Your task to perform on an android device: turn off picture-in-picture Image 0: 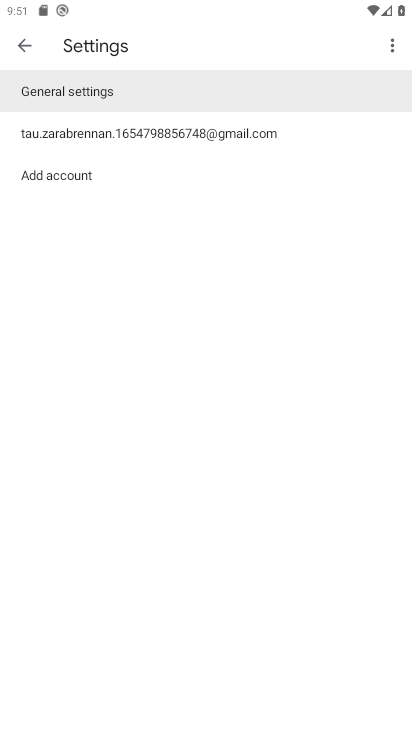
Step 0: press home button
Your task to perform on an android device: turn off picture-in-picture Image 1: 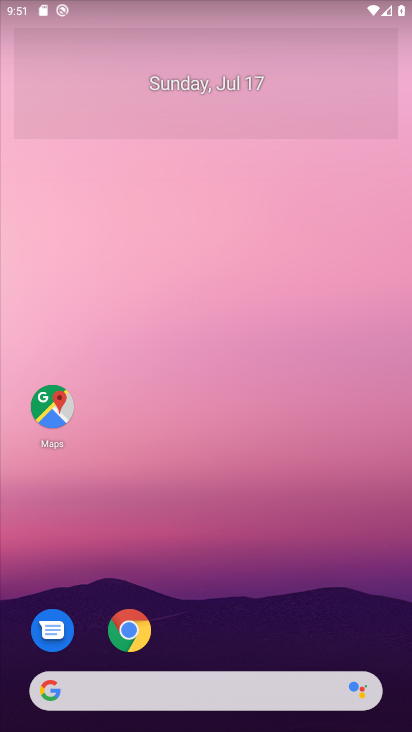
Step 1: click (156, 635)
Your task to perform on an android device: turn off picture-in-picture Image 2: 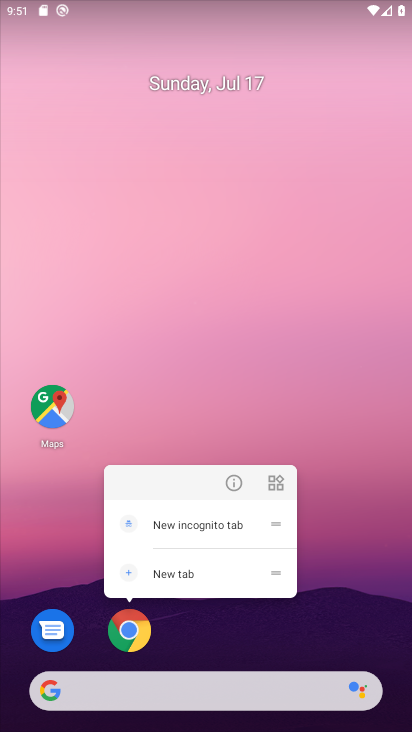
Step 2: click (238, 479)
Your task to perform on an android device: turn off picture-in-picture Image 3: 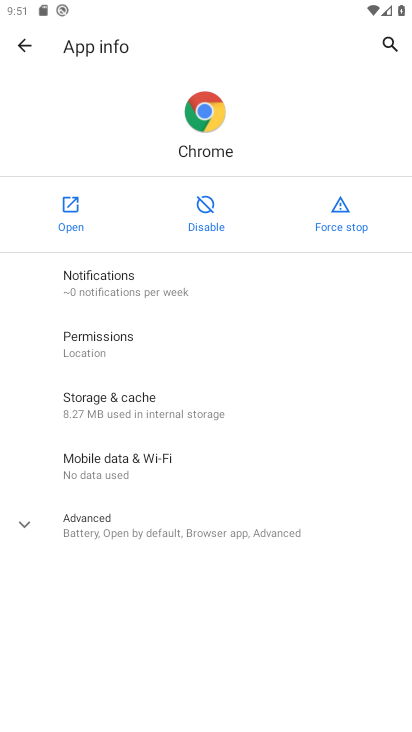
Step 3: click (112, 530)
Your task to perform on an android device: turn off picture-in-picture Image 4: 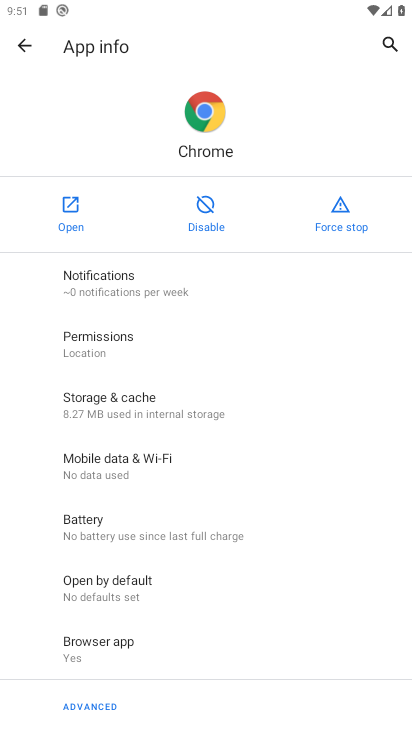
Step 4: drag from (128, 637) to (134, 285)
Your task to perform on an android device: turn off picture-in-picture Image 5: 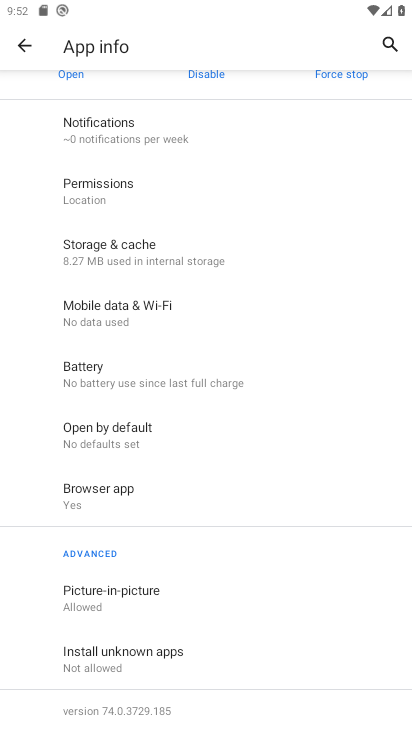
Step 5: click (123, 602)
Your task to perform on an android device: turn off picture-in-picture Image 6: 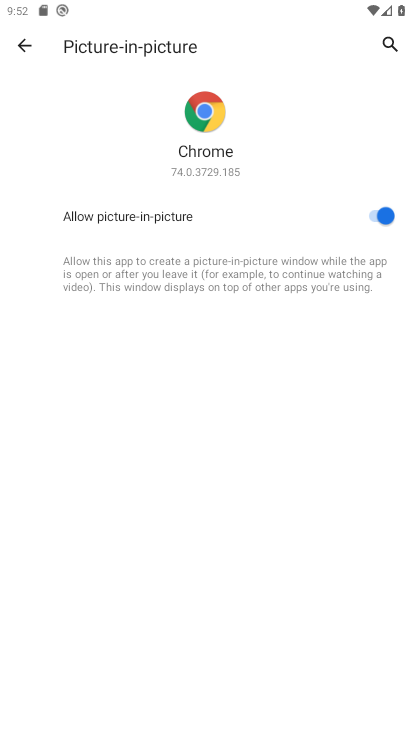
Step 6: click (352, 224)
Your task to perform on an android device: turn off picture-in-picture Image 7: 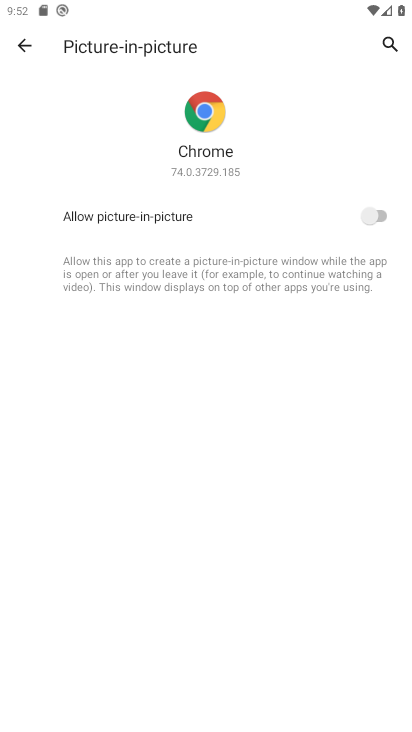
Step 7: task complete